Your task to perform on an android device: allow cookies in the chrome app Image 0: 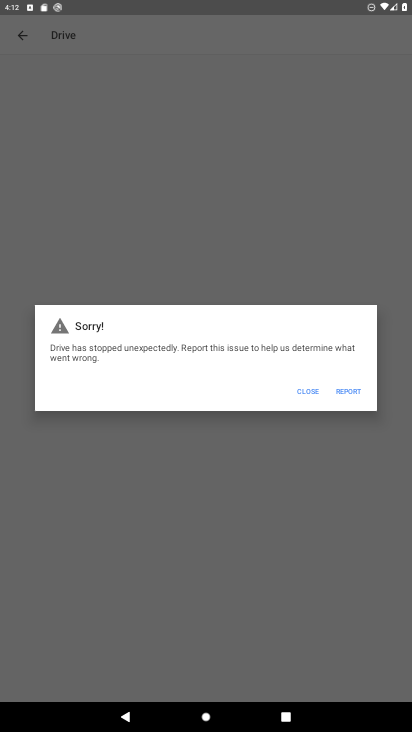
Step 0: press home button
Your task to perform on an android device: allow cookies in the chrome app Image 1: 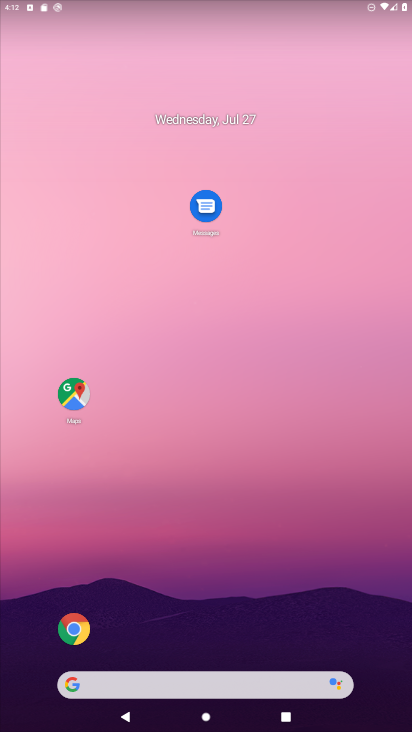
Step 1: click (68, 618)
Your task to perform on an android device: allow cookies in the chrome app Image 2: 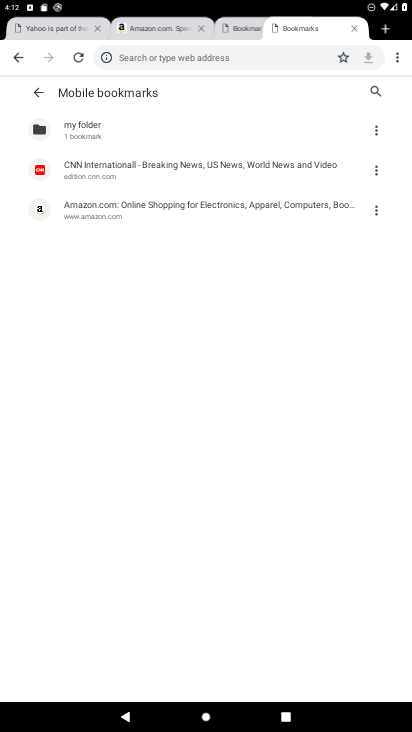
Step 2: click (403, 56)
Your task to perform on an android device: allow cookies in the chrome app Image 3: 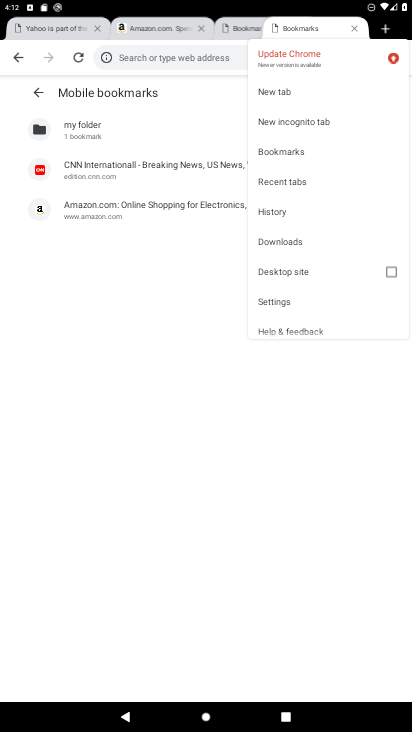
Step 3: click (286, 298)
Your task to perform on an android device: allow cookies in the chrome app Image 4: 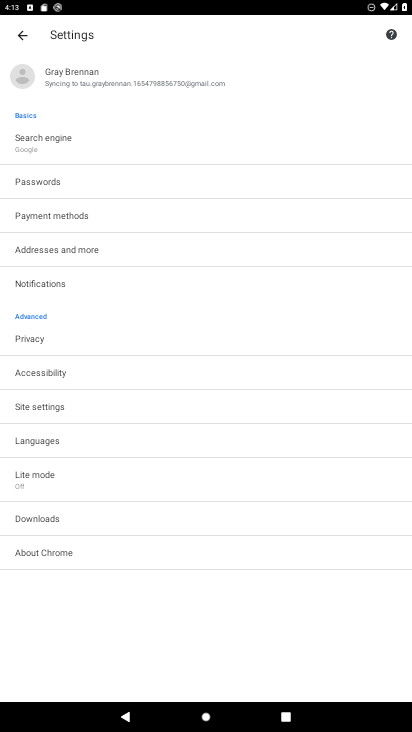
Step 4: click (60, 407)
Your task to perform on an android device: allow cookies in the chrome app Image 5: 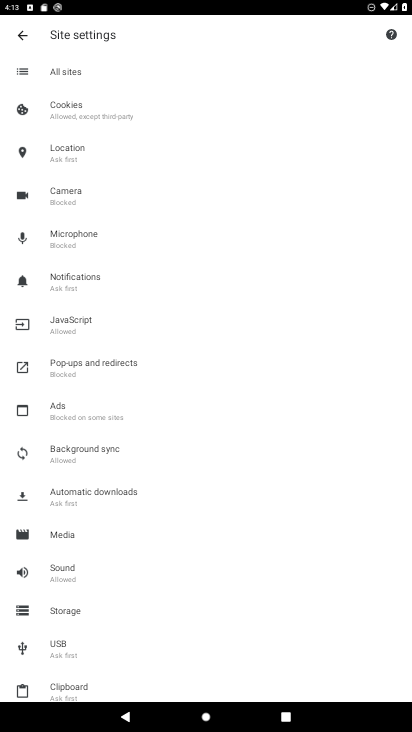
Step 5: click (46, 114)
Your task to perform on an android device: allow cookies in the chrome app Image 6: 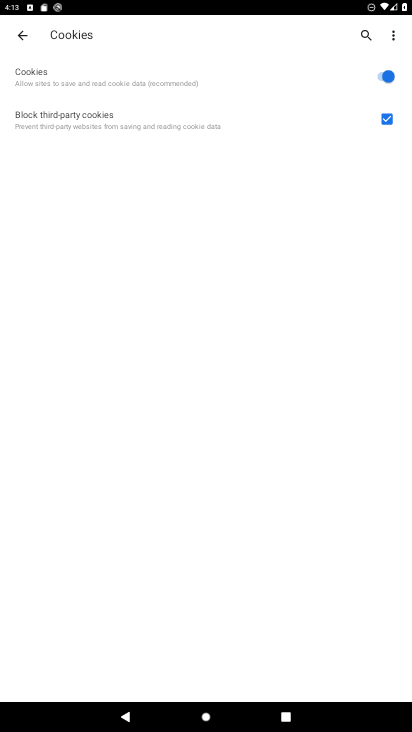
Step 6: task complete